Your task to perform on an android device: open the mobile data screen to see how much data has been used Image 0: 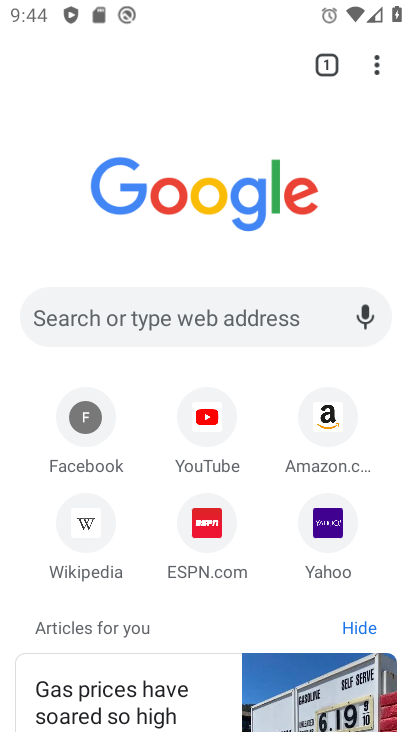
Step 0: press home button
Your task to perform on an android device: open the mobile data screen to see how much data has been used Image 1: 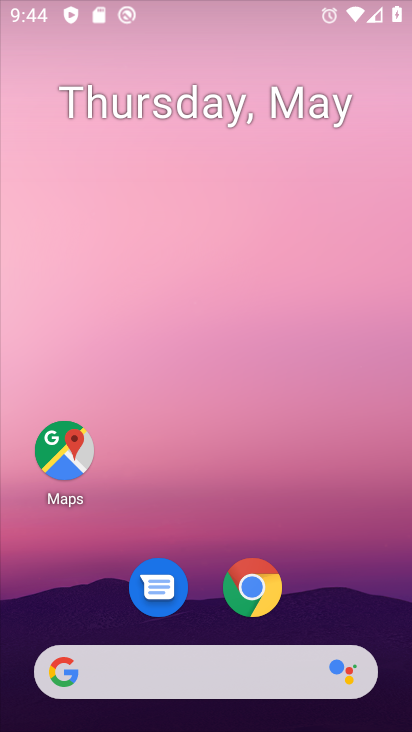
Step 1: drag from (395, 662) to (333, 91)
Your task to perform on an android device: open the mobile data screen to see how much data has been used Image 2: 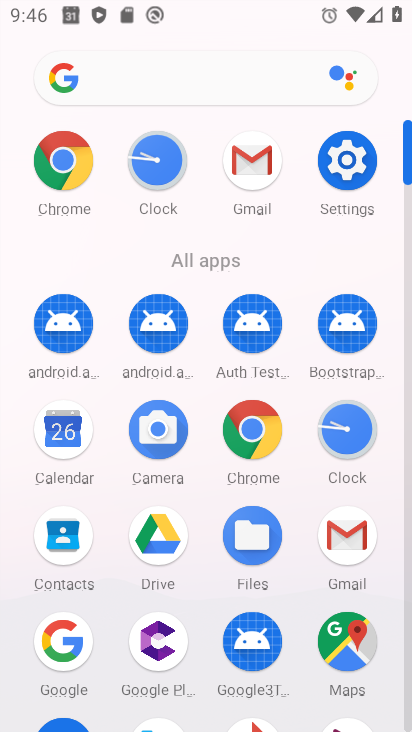
Step 2: click (345, 168)
Your task to perform on an android device: open the mobile data screen to see how much data has been used Image 3: 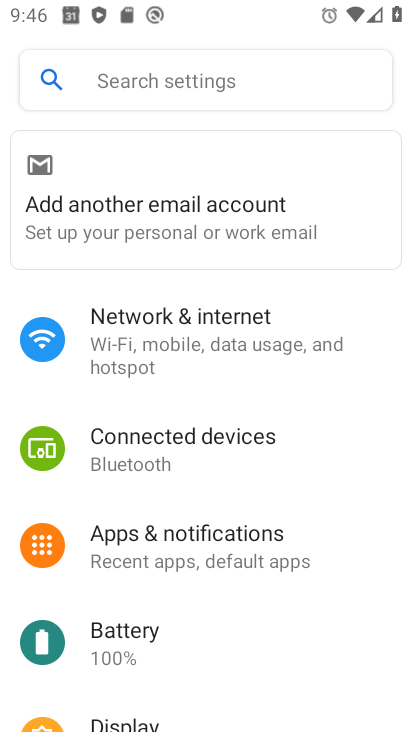
Step 3: click (168, 322)
Your task to perform on an android device: open the mobile data screen to see how much data has been used Image 4: 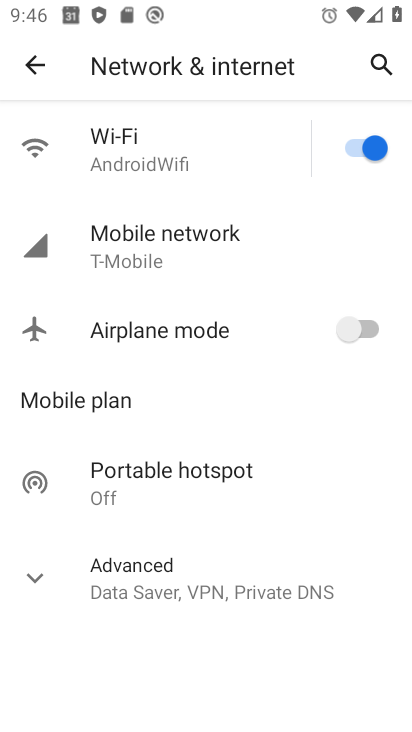
Step 4: click (176, 265)
Your task to perform on an android device: open the mobile data screen to see how much data has been used Image 5: 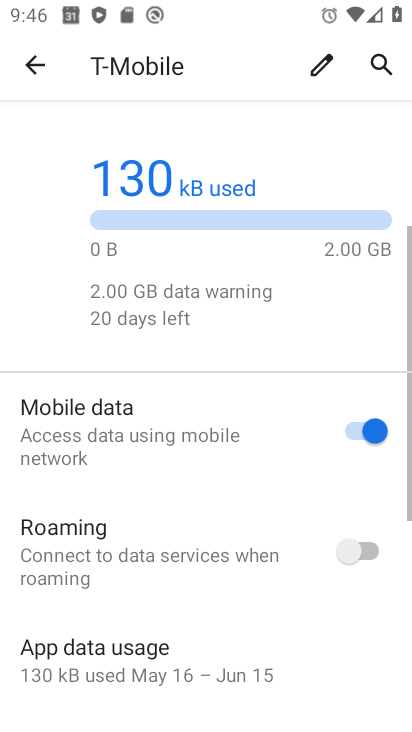
Step 5: click (122, 673)
Your task to perform on an android device: open the mobile data screen to see how much data has been used Image 6: 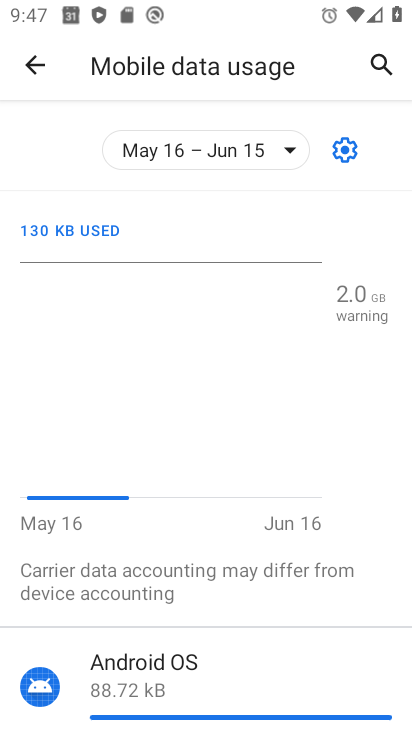
Step 6: task complete